Your task to perform on an android device: turn off improve location accuracy Image 0: 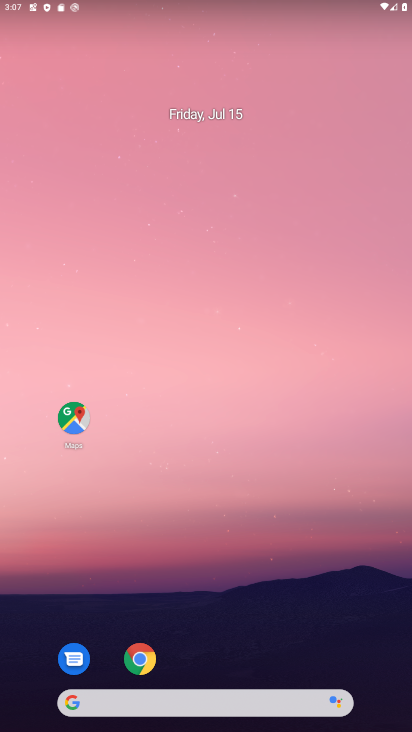
Step 0: drag from (40, 557) to (98, 325)
Your task to perform on an android device: turn off improve location accuracy Image 1: 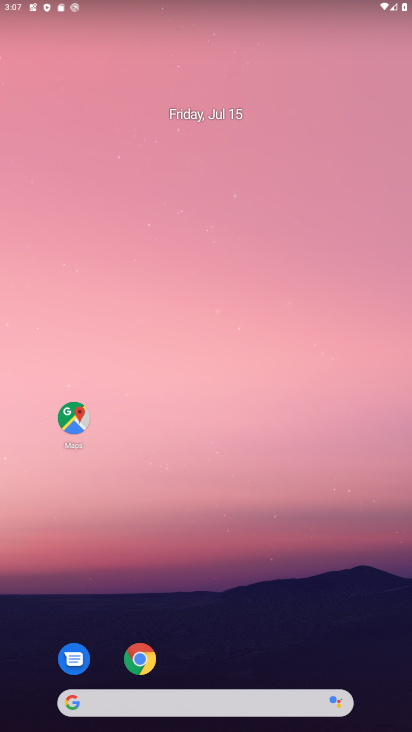
Step 1: drag from (103, 220) to (148, 10)
Your task to perform on an android device: turn off improve location accuracy Image 2: 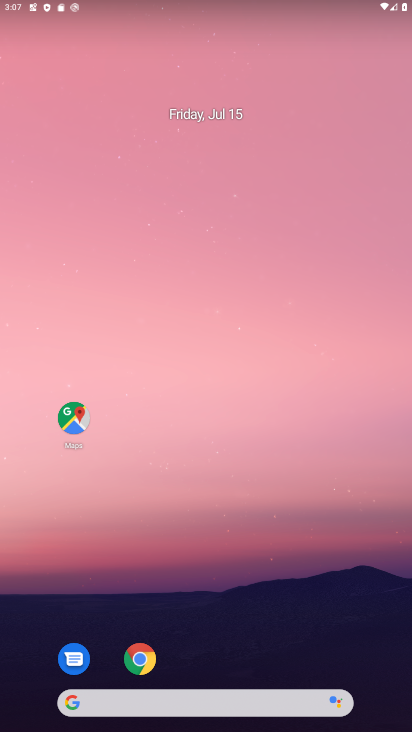
Step 2: drag from (40, 610) to (104, 86)
Your task to perform on an android device: turn off improve location accuracy Image 3: 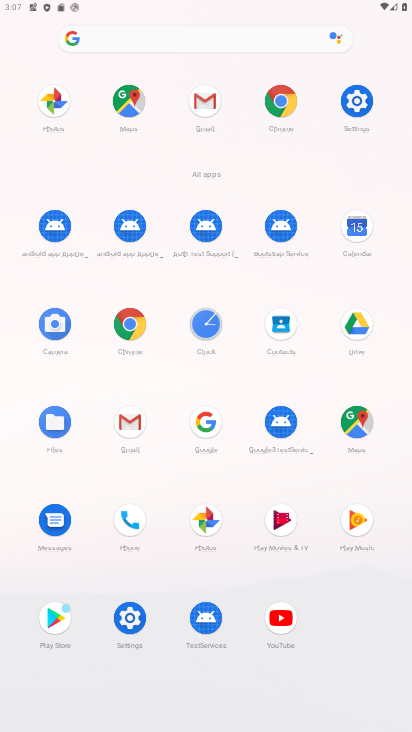
Step 3: click (127, 610)
Your task to perform on an android device: turn off improve location accuracy Image 4: 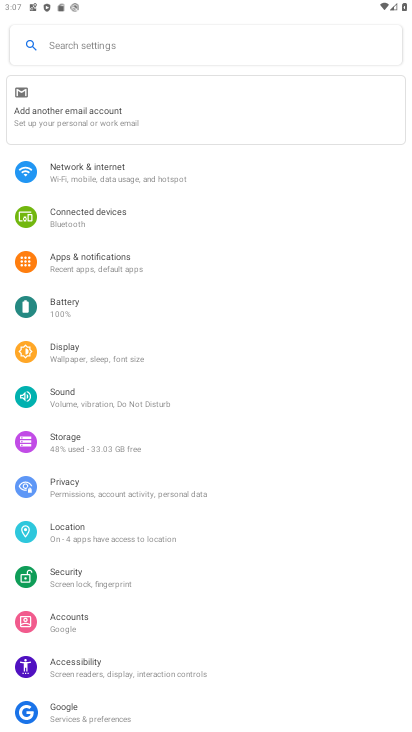
Step 4: click (90, 529)
Your task to perform on an android device: turn off improve location accuracy Image 5: 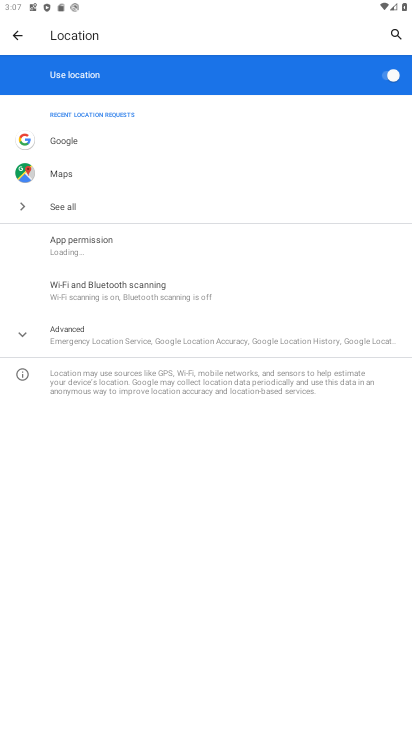
Step 5: click (101, 330)
Your task to perform on an android device: turn off improve location accuracy Image 6: 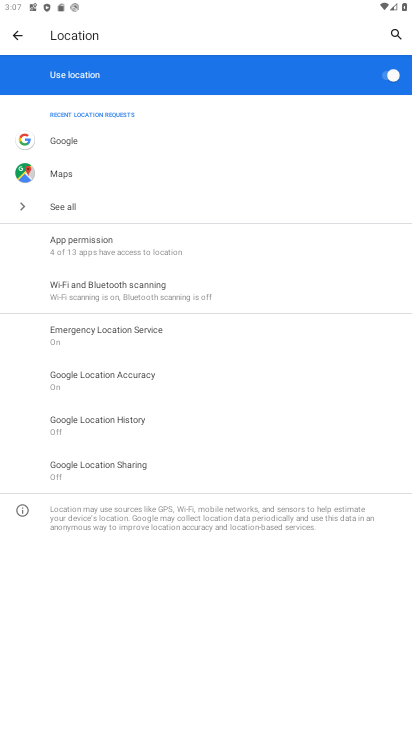
Step 6: click (95, 386)
Your task to perform on an android device: turn off improve location accuracy Image 7: 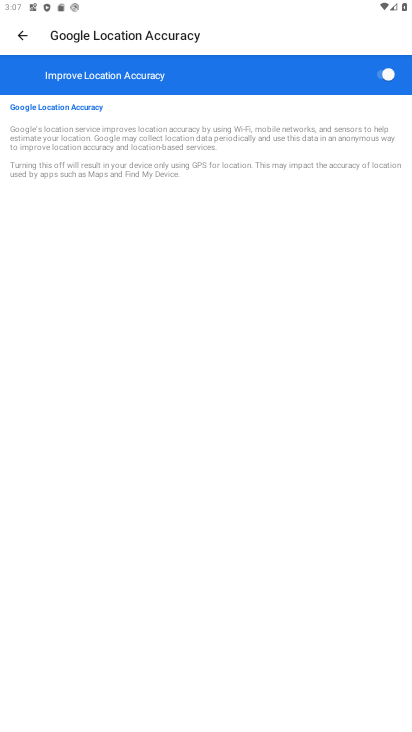
Step 7: click (384, 76)
Your task to perform on an android device: turn off improve location accuracy Image 8: 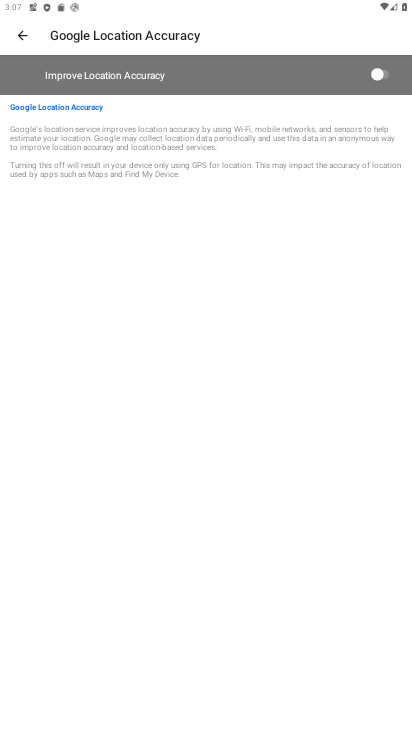
Step 8: task complete